Your task to perform on an android device: check google app version Image 0: 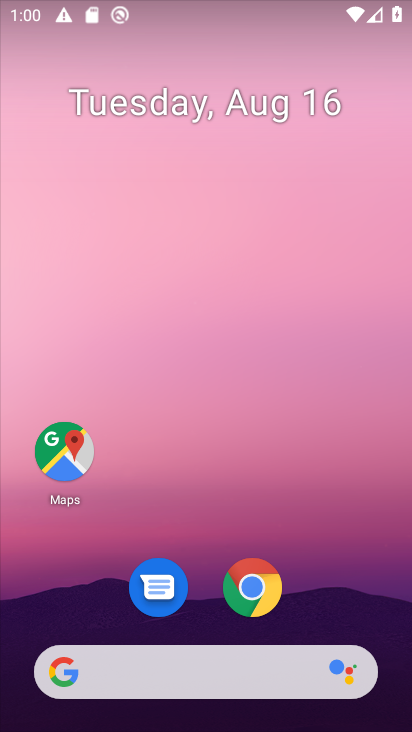
Step 0: drag from (216, 574) to (180, 260)
Your task to perform on an android device: check google app version Image 1: 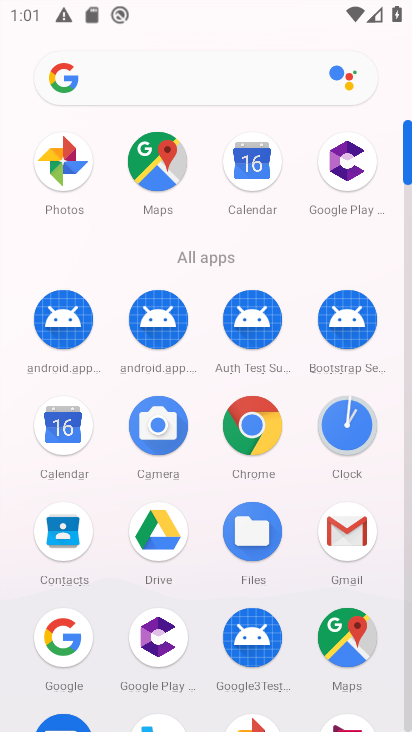
Step 1: click (60, 632)
Your task to perform on an android device: check google app version Image 2: 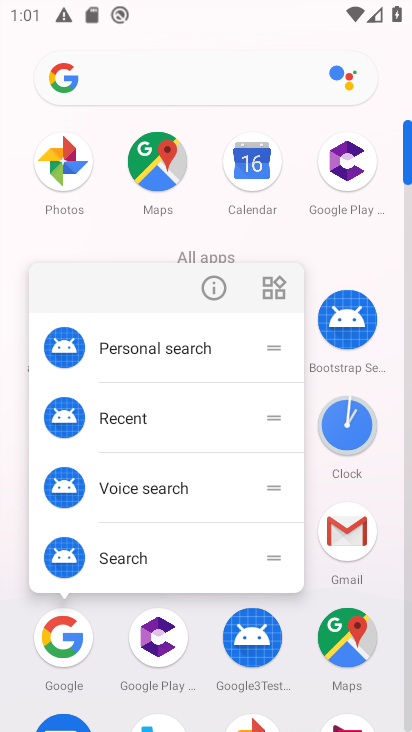
Step 2: click (213, 288)
Your task to perform on an android device: check google app version Image 3: 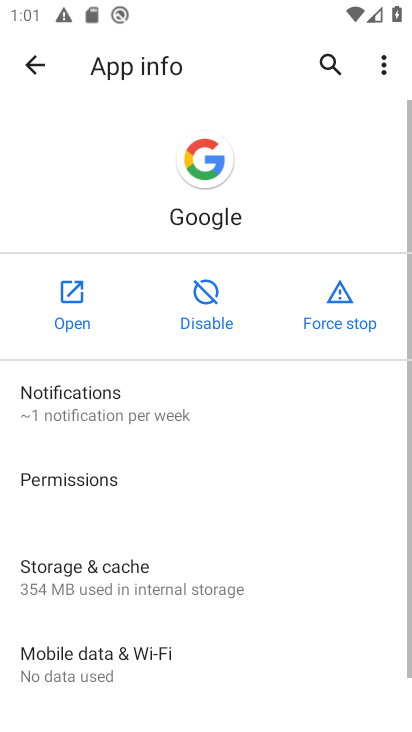
Step 3: drag from (182, 682) to (194, 309)
Your task to perform on an android device: check google app version Image 4: 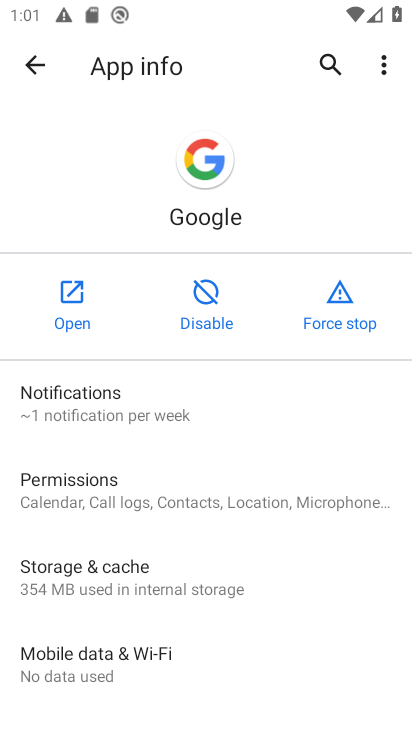
Step 4: drag from (108, 711) to (106, 232)
Your task to perform on an android device: check google app version Image 5: 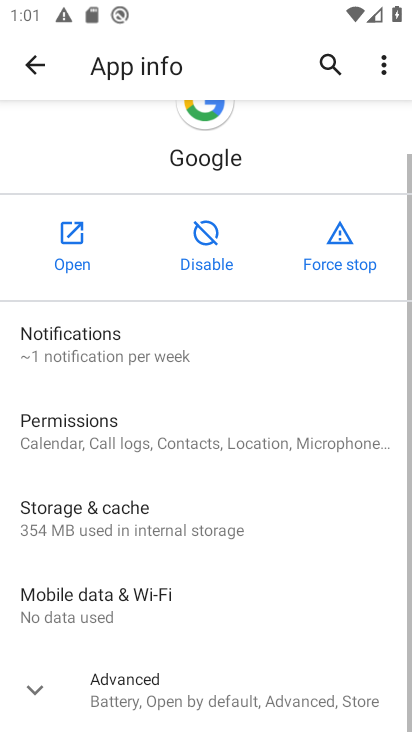
Step 5: click (147, 692)
Your task to perform on an android device: check google app version Image 6: 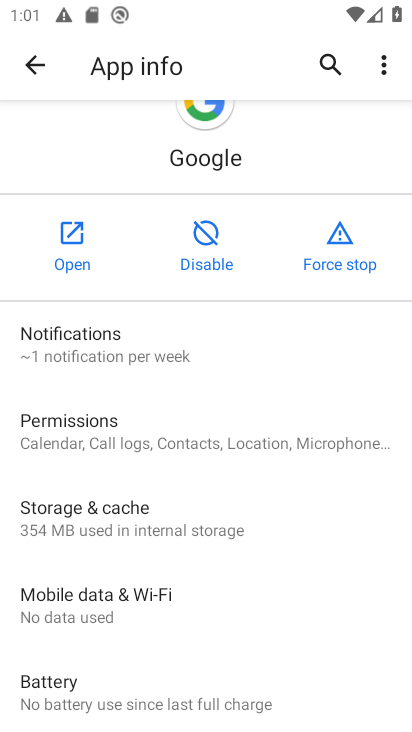
Step 6: task complete